Your task to perform on an android device: set the stopwatch Image 0: 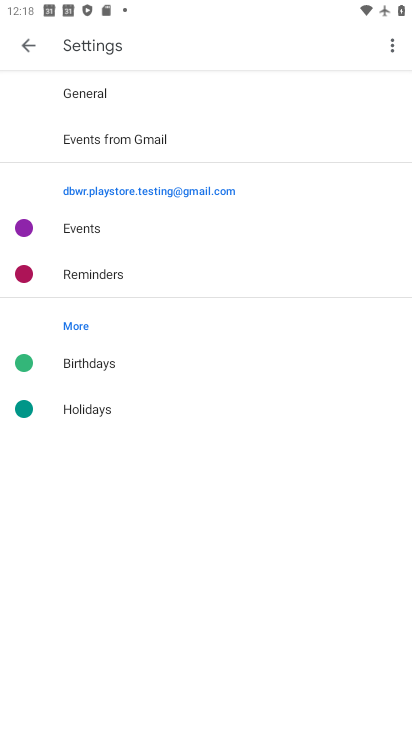
Step 0: press home button
Your task to perform on an android device: set the stopwatch Image 1: 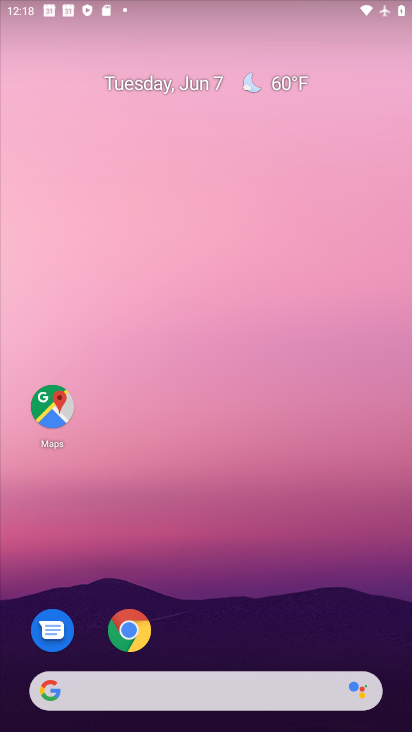
Step 1: drag from (381, 638) to (280, 60)
Your task to perform on an android device: set the stopwatch Image 2: 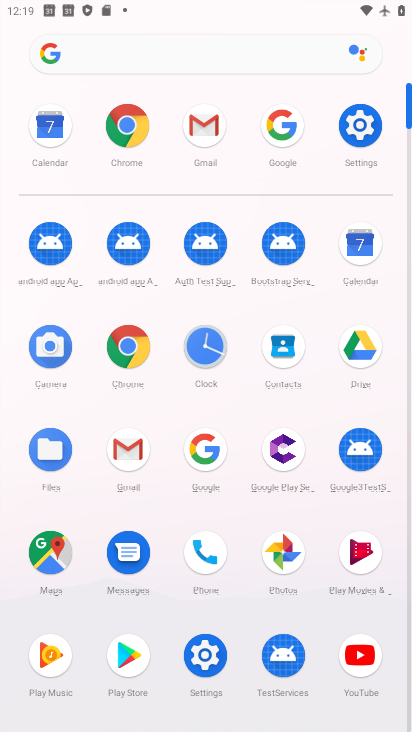
Step 2: click (210, 348)
Your task to perform on an android device: set the stopwatch Image 3: 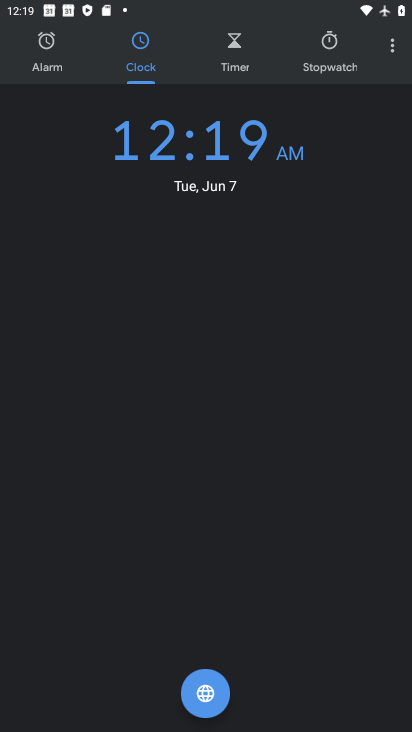
Step 3: click (324, 44)
Your task to perform on an android device: set the stopwatch Image 4: 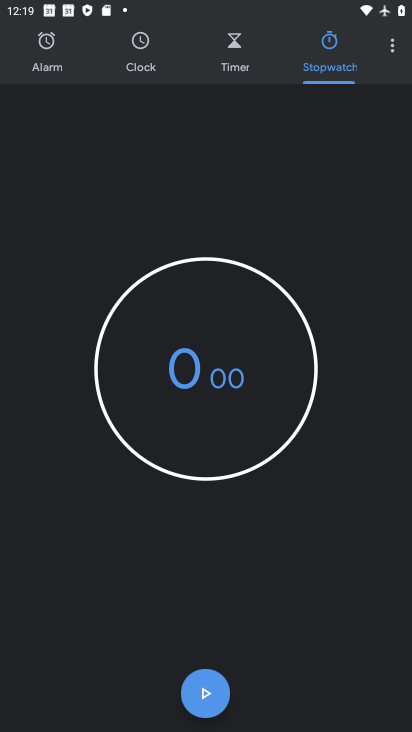
Step 4: click (222, 704)
Your task to perform on an android device: set the stopwatch Image 5: 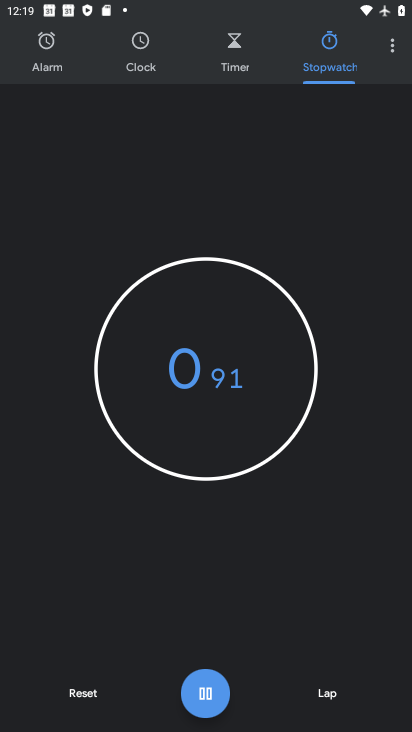
Step 5: click (214, 701)
Your task to perform on an android device: set the stopwatch Image 6: 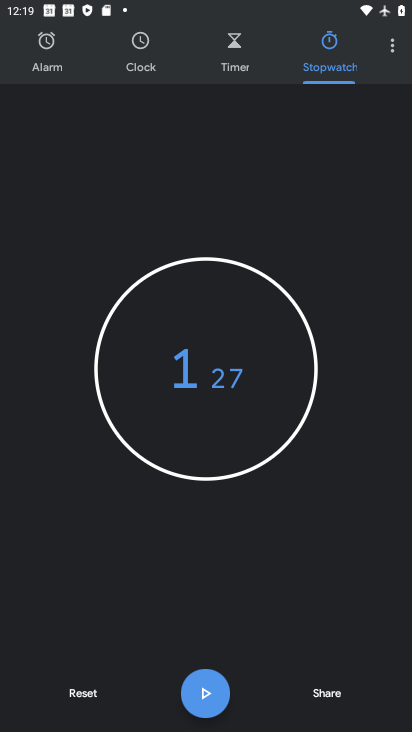
Step 6: task complete